Your task to perform on an android device: Is it going to rain this weekend? Image 0: 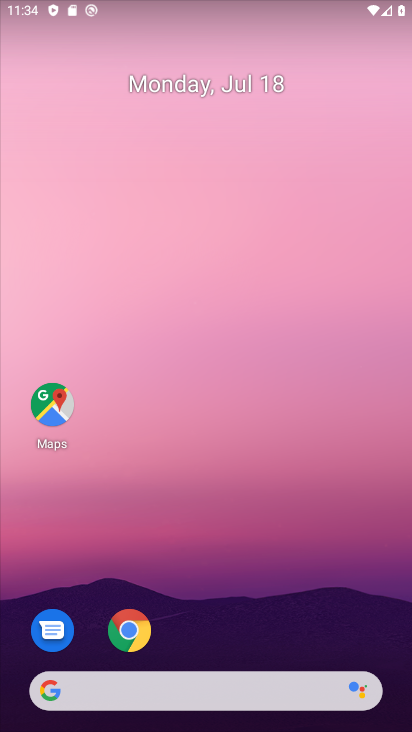
Step 0: click (204, 682)
Your task to perform on an android device: Is it going to rain this weekend? Image 1: 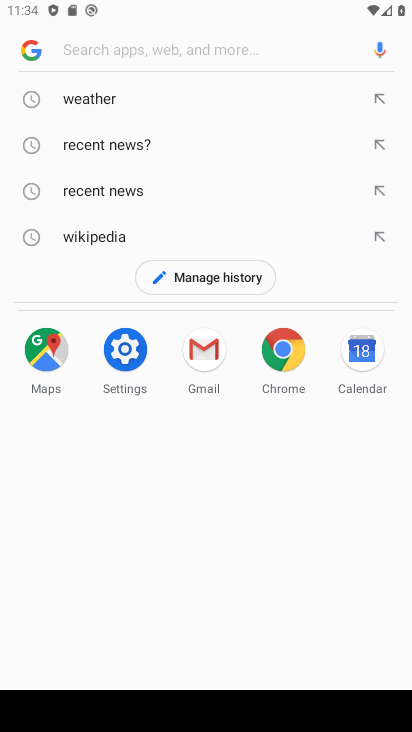
Step 1: click (100, 101)
Your task to perform on an android device: Is it going to rain this weekend? Image 2: 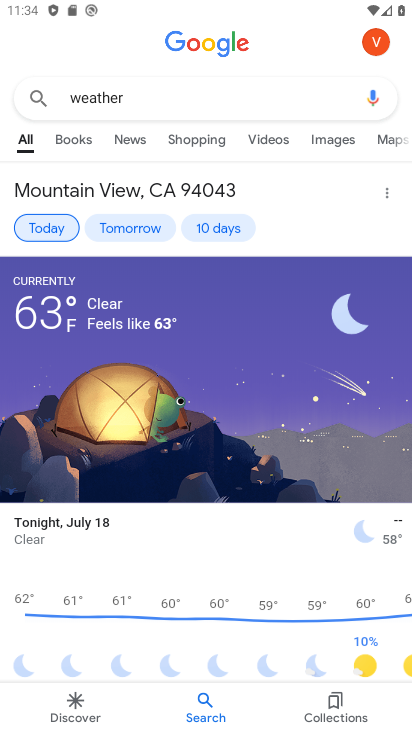
Step 2: click (219, 229)
Your task to perform on an android device: Is it going to rain this weekend? Image 3: 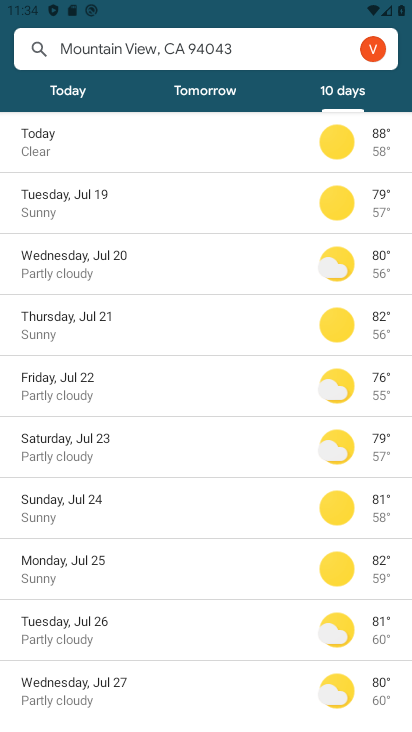
Step 3: task complete